Your task to perform on an android device: Open the calendar and show me this week's events? Image 0: 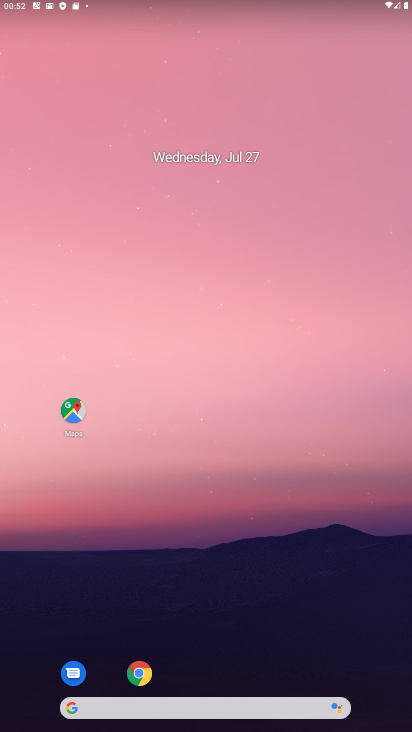
Step 0: drag from (301, 636) to (243, 116)
Your task to perform on an android device: Open the calendar and show me this week's events? Image 1: 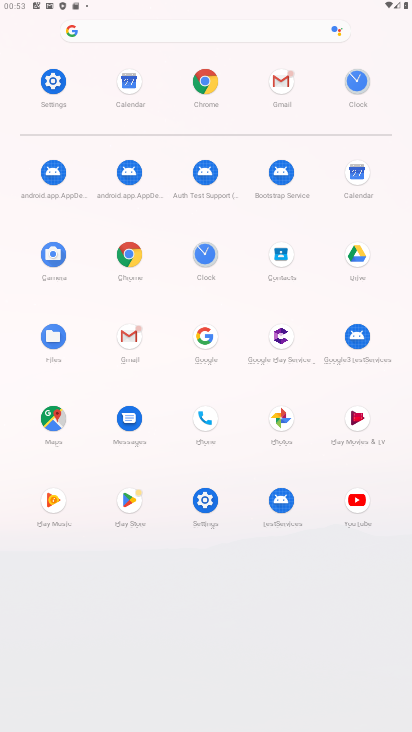
Step 1: click (351, 162)
Your task to perform on an android device: Open the calendar and show me this week's events? Image 2: 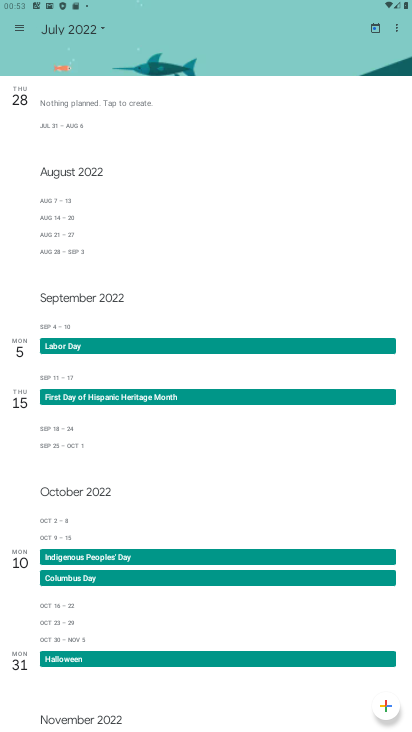
Step 2: click (18, 28)
Your task to perform on an android device: Open the calendar and show me this week's events? Image 3: 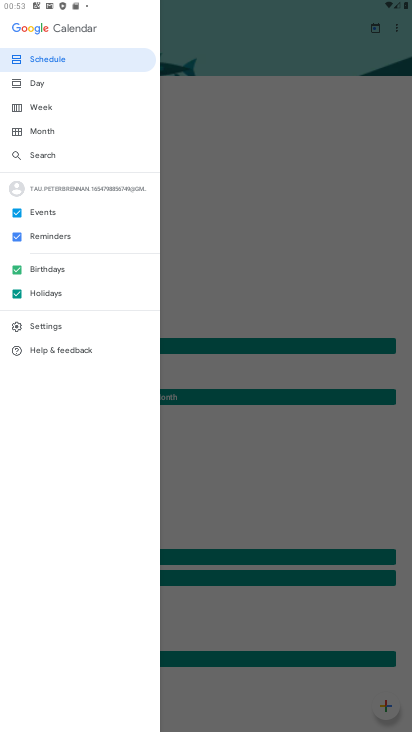
Step 3: click (35, 105)
Your task to perform on an android device: Open the calendar and show me this week's events? Image 4: 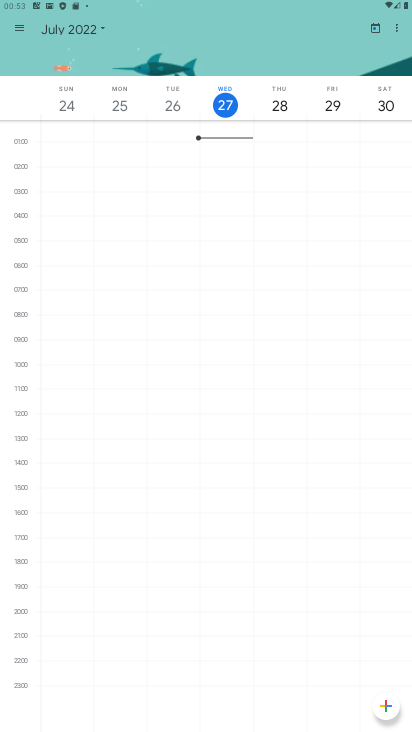
Step 4: task complete